Your task to perform on an android device: Go to accessibility settings Image 0: 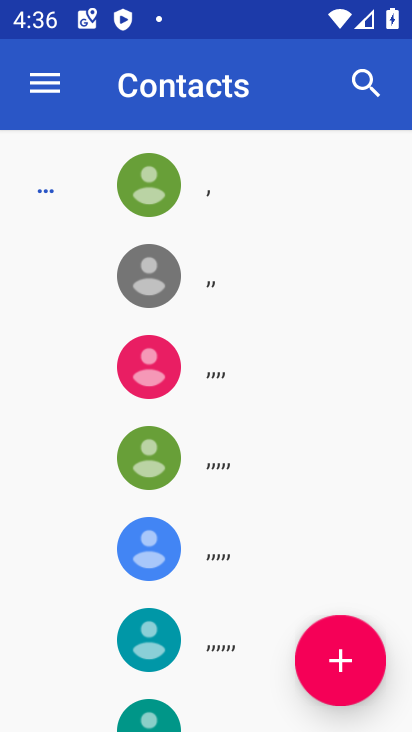
Step 0: press home button
Your task to perform on an android device: Go to accessibility settings Image 1: 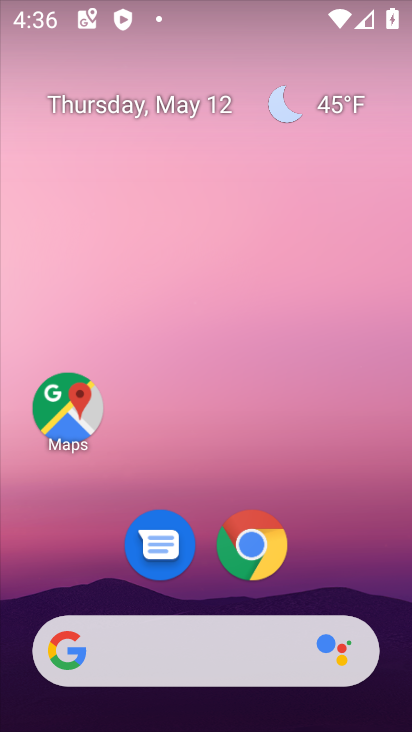
Step 1: drag from (332, 551) to (238, 142)
Your task to perform on an android device: Go to accessibility settings Image 2: 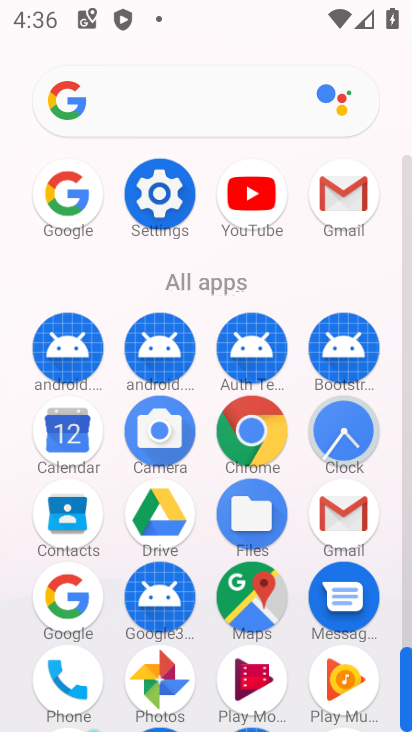
Step 2: click (149, 196)
Your task to perform on an android device: Go to accessibility settings Image 3: 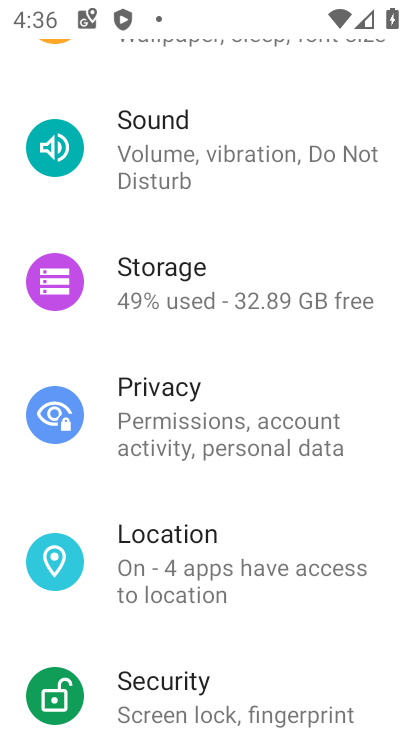
Step 3: drag from (263, 623) to (260, 81)
Your task to perform on an android device: Go to accessibility settings Image 4: 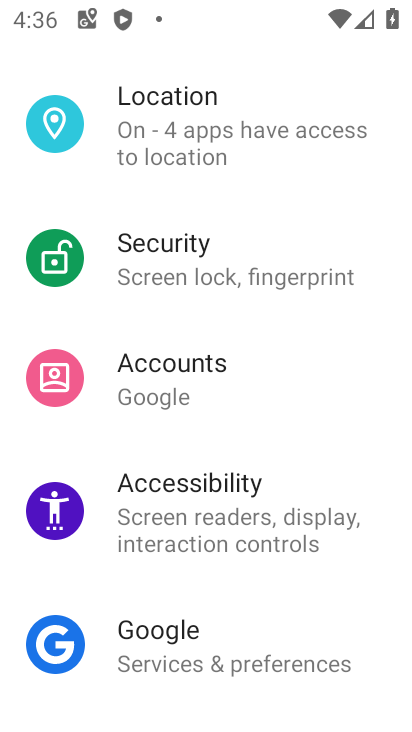
Step 4: drag from (273, 566) to (231, 85)
Your task to perform on an android device: Go to accessibility settings Image 5: 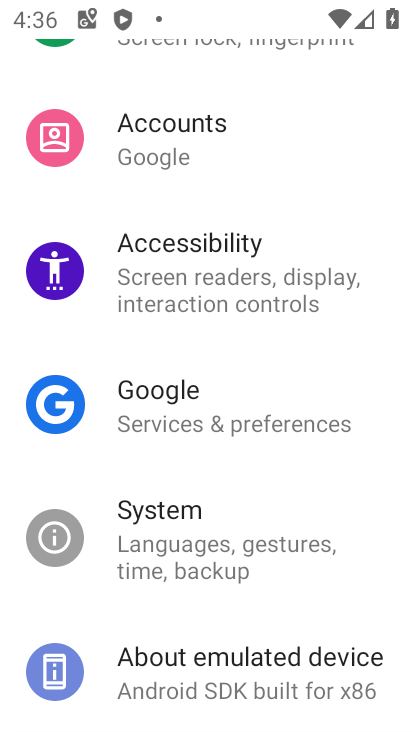
Step 5: drag from (236, 552) to (244, 104)
Your task to perform on an android device: Go to accessibility settings Image 6: 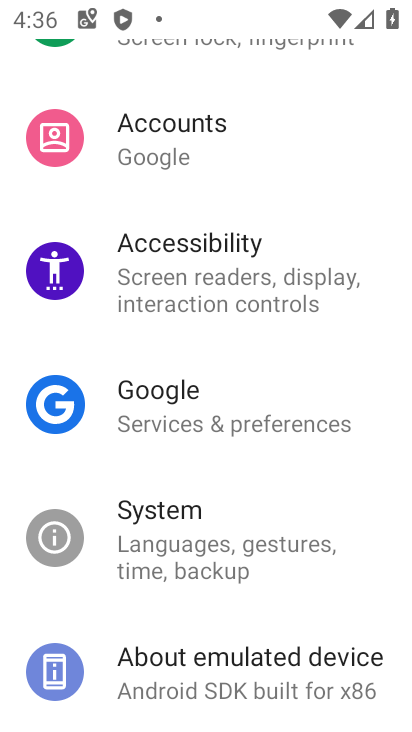
Step 6: click (246, 267)
Your task to perform on an android device: Go to accessibility settings Image 7: 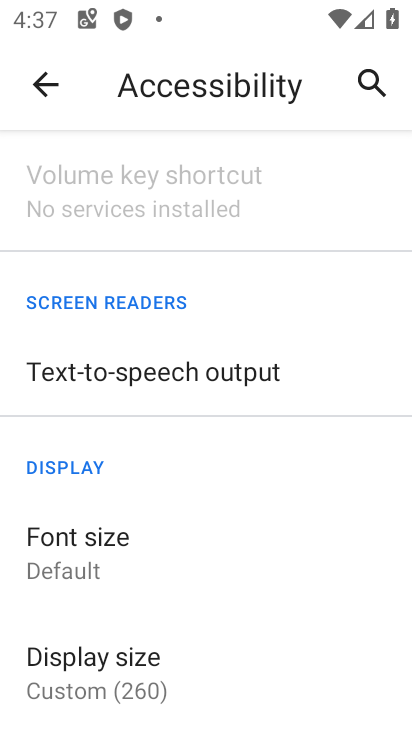
Step 7: task complete